Your task to perform on an android device: Go to Wikipedia Image 0: 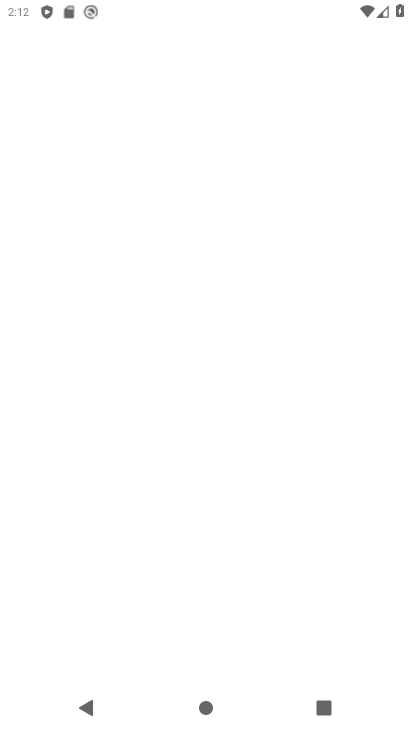
Step 0: drag from (176, 600) to (263, 0)
Your task to perform on an android device: Go to Wikipedia Image 1: 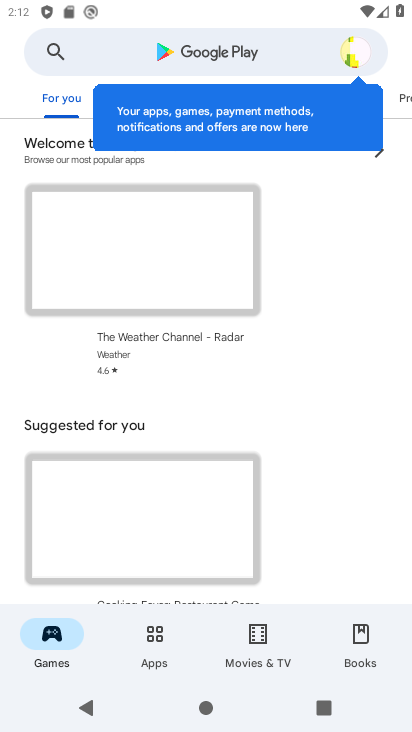
Step 1: press back button
Your task to perform on an android device: Go to Wikipedia Image 2: 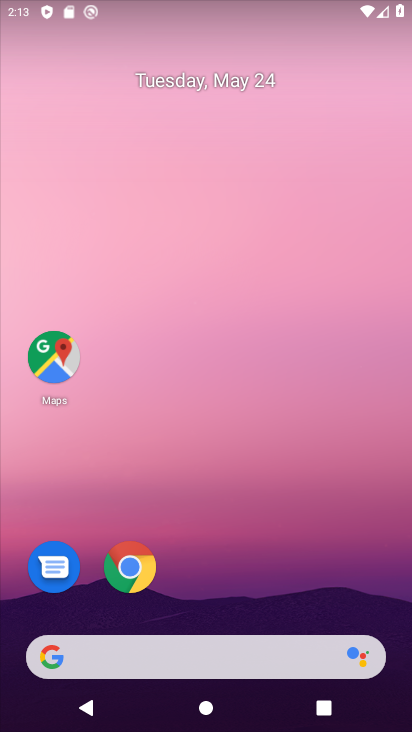
Step 2: drag from (241, 617) to (251, 12)
Your task to perform on an android device: Go to Wikipedia Image 3: 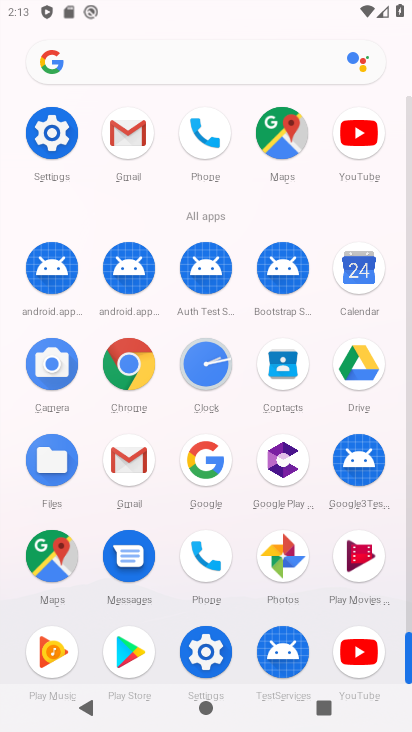
Step 3: click (75, 126)
Your task to perform on an android device: Go to Wikipedia Image 4: 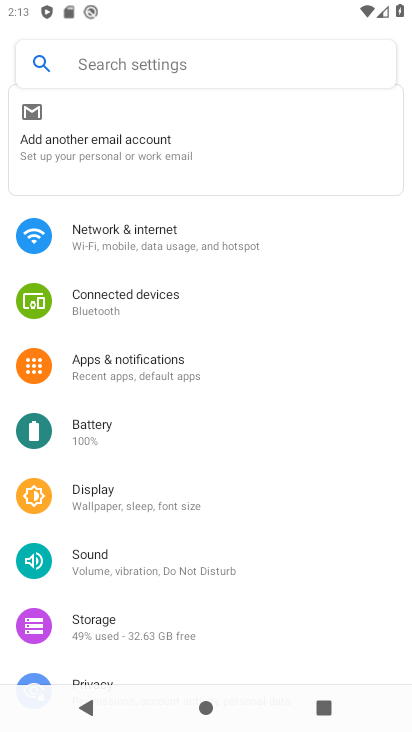
Step 4: press back button
Your task to perform on an android device: Go to Wikipedia Image 5: 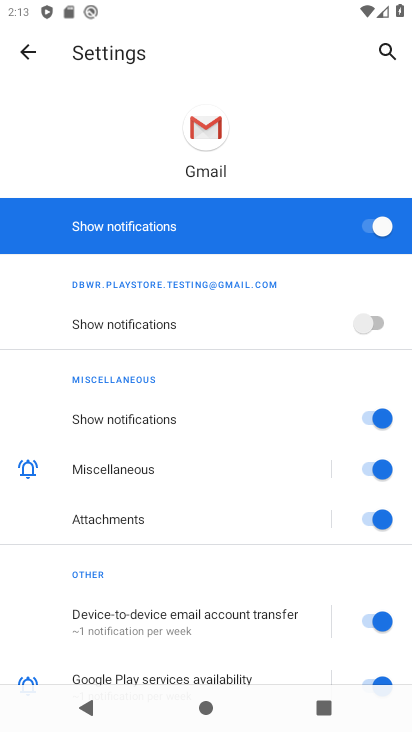
Step 5: press back button
Your task to perform on an android device: Go to Wikipedia Image 6: 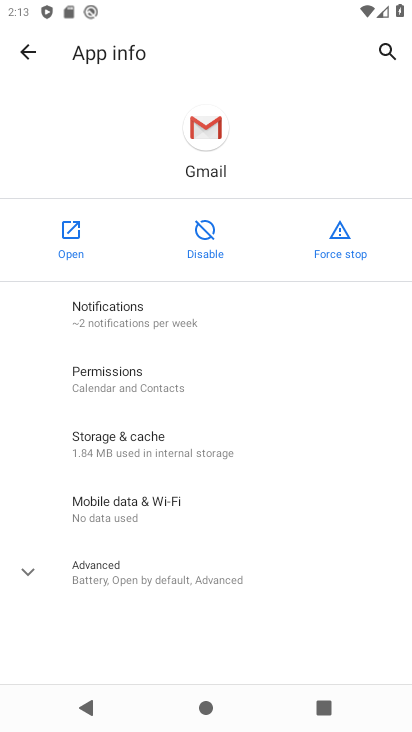
Step 6: press back button
Your task to perform on an android device: Go to Wikipedia Image 7: 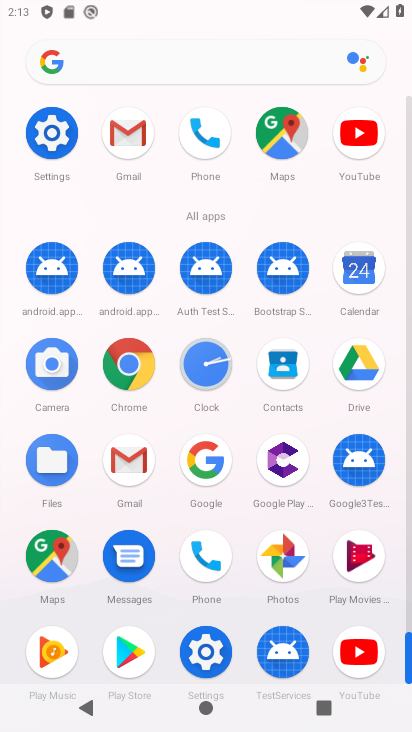
Step 7: click (138, 374)
Your task to perform on an android device: Go to Wikipedia Image 8: 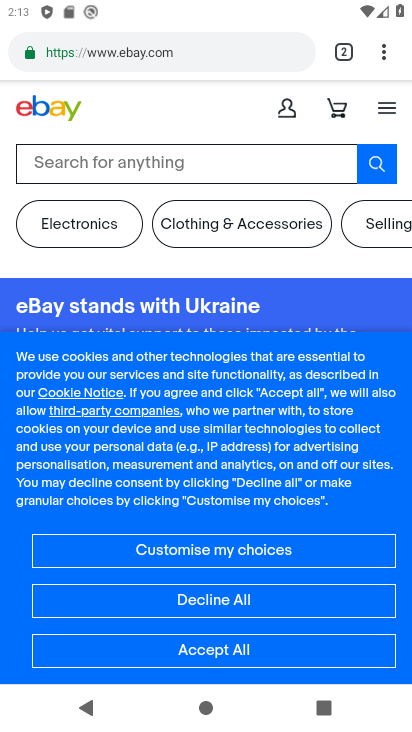
Step 8: click (349, 38)
Your task to perform on an android device: Go to Wikipedia Image 9: 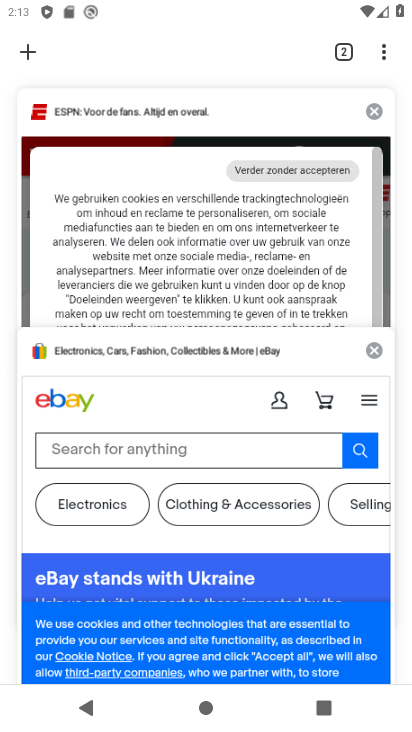
Step 9: click (35, 45)
Your task to perform on an android device: Go to Wikipedia Image 10: 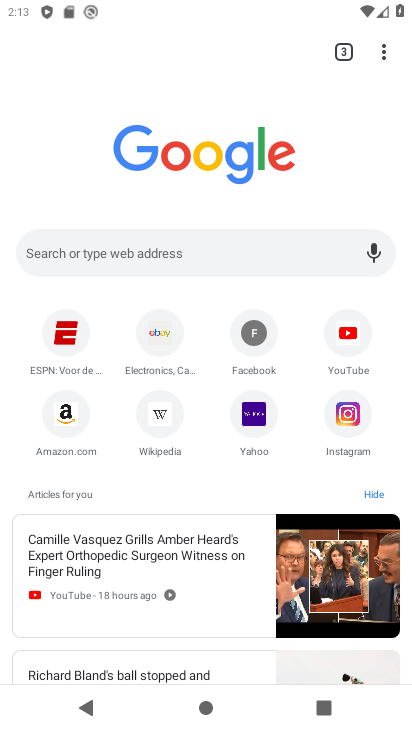
Step 10: click (156, 425)
Your task to perform on an android device: Go to Wikipedia Image 11: 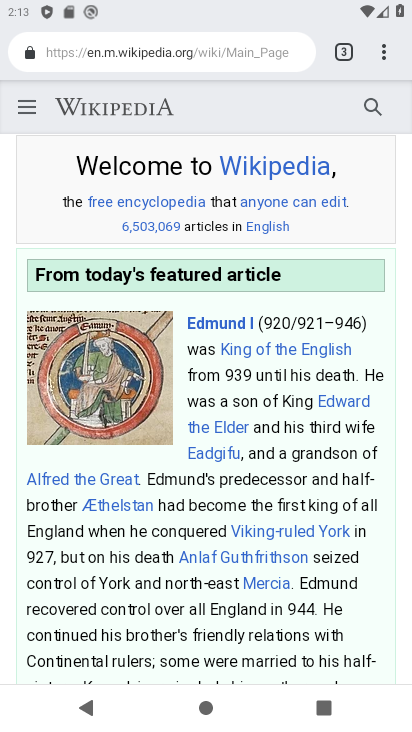
Step 11: task complete